Your task to perform on an android device: make emails show in primary in the gmail app Image 0: 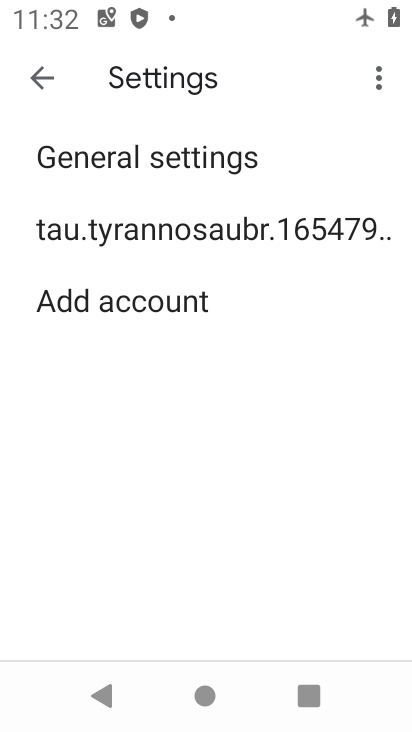
Step 0: press home button
Your task to perform on an android device: make emails show in primary in the gmail app Image 1: 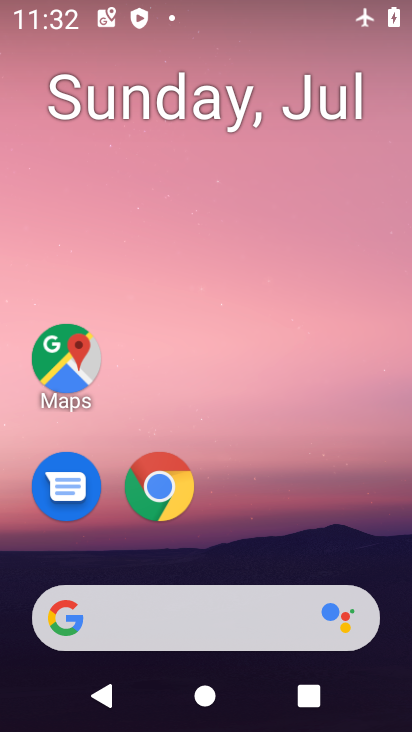
Step 1: drag from (365, 544) to (380, 126)
Your task to perform on an android device: make emails show in primary in the gmail app Image 2: 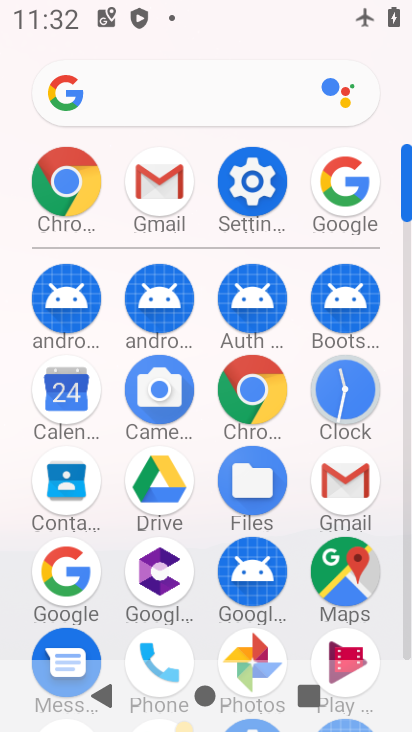
Step 2: click (340, 479)
Your task to perform on an android device: make emails show in primary in the gmail app Image 3: 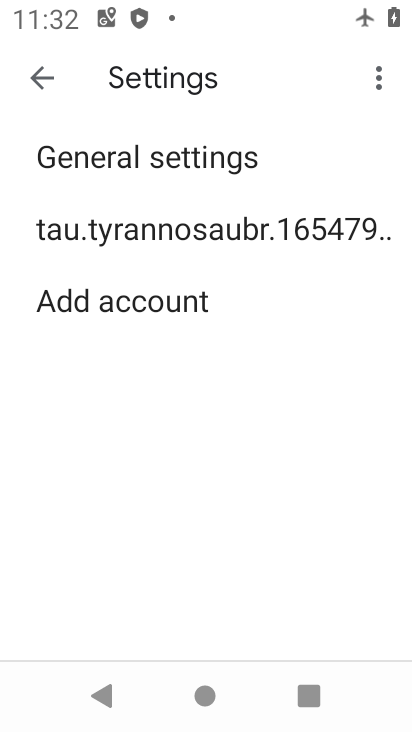
Step 3: click (258, 238)
Your task to perform on an android device: make emails show in primary in the gmail app Image 4: 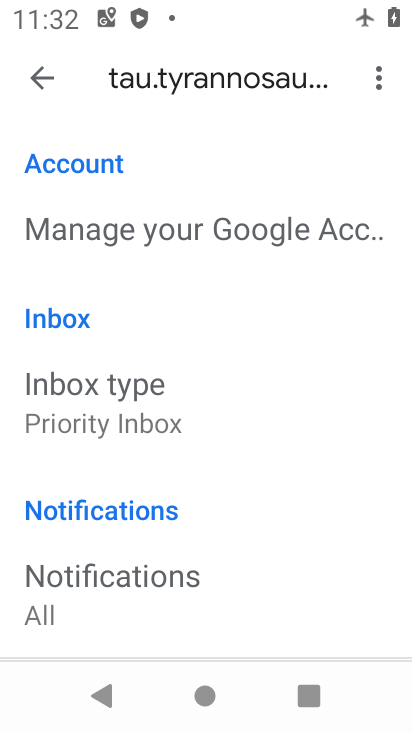
Step 4: drag from (277, 462) to (277, 388)
Your task to perform on an android device: make emails show in primary in the gmail app Image 5: 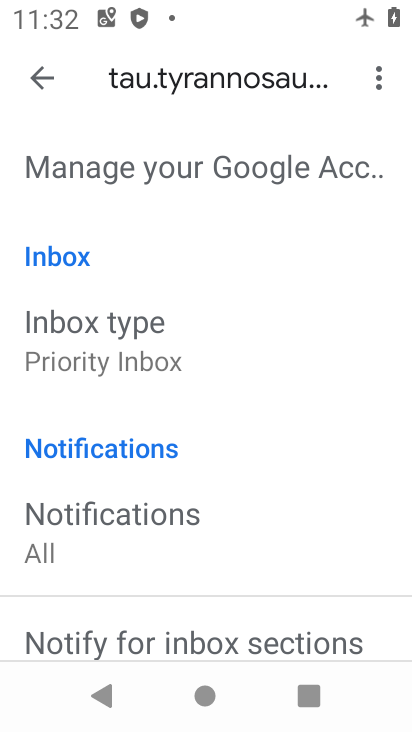
Step 5: drag from (295, 495) to (292, 355)
Your task to perform on an android device: make emails show in primary in the gmail app Image 6: 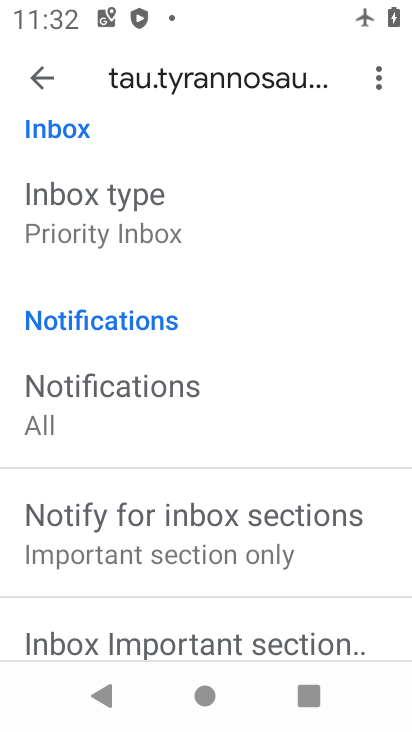
Step 6: click (160, 231)
Your task to perform on an android device: make emails show in primary in the gmail app Image 7: 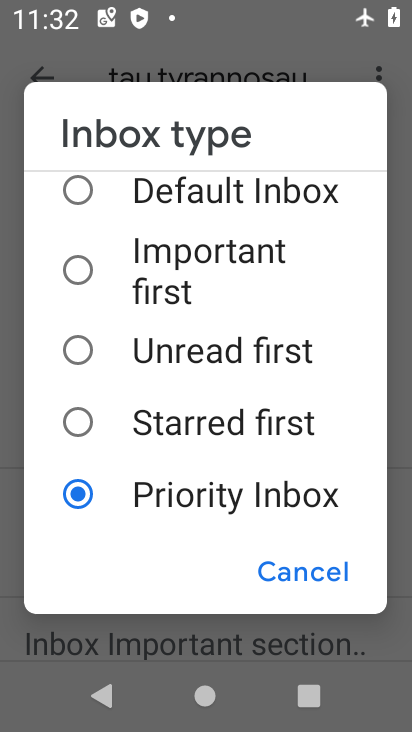
Step 7: click (192, 198)
Your task to perform on an android device: make emails show in primary in the gmail app Image 8: 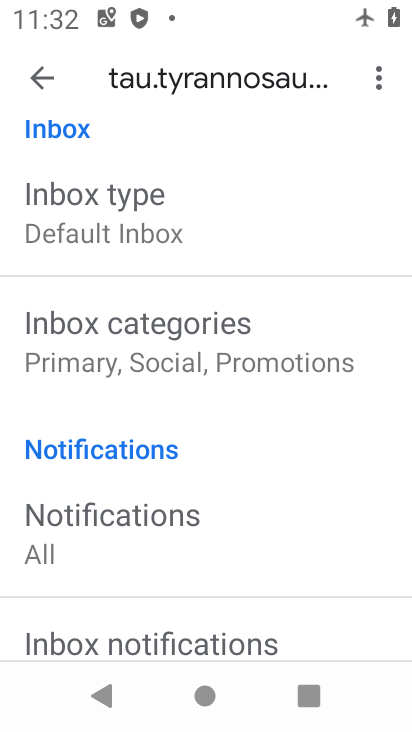
Step 8: click (202, 348)
Your task to perform on an android device: make emails show in primary in the gmail app Image 9: 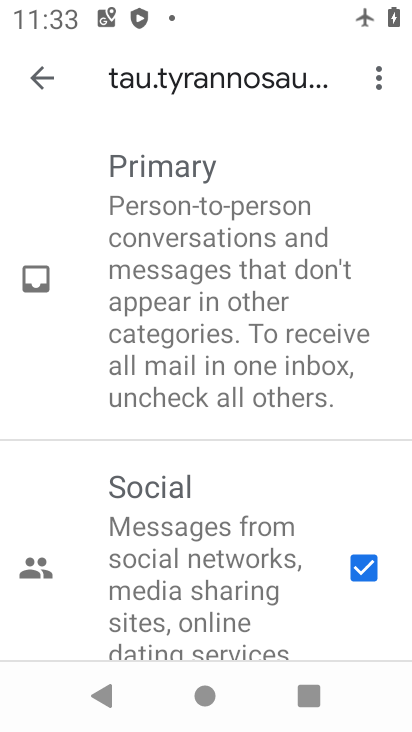
Step 9: drag from (267, 510) to (265, 353)
Your task to perform on an android device: make emails show in primary in the gmail app Image 10: 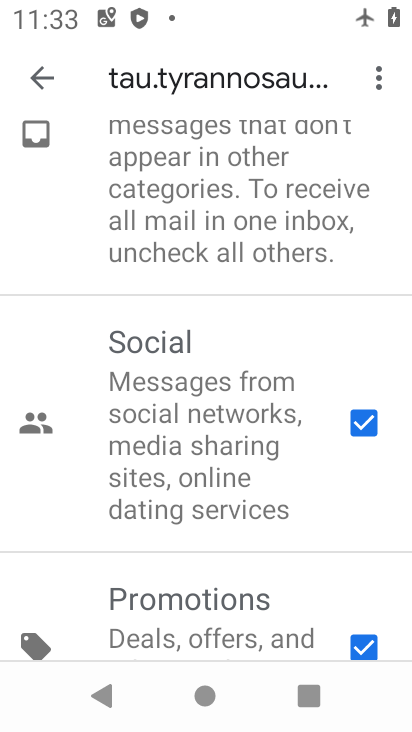
Step 10: click (377, 419)
Your task to perform on an android device: make emails show in primary in the gmail app Image 11: 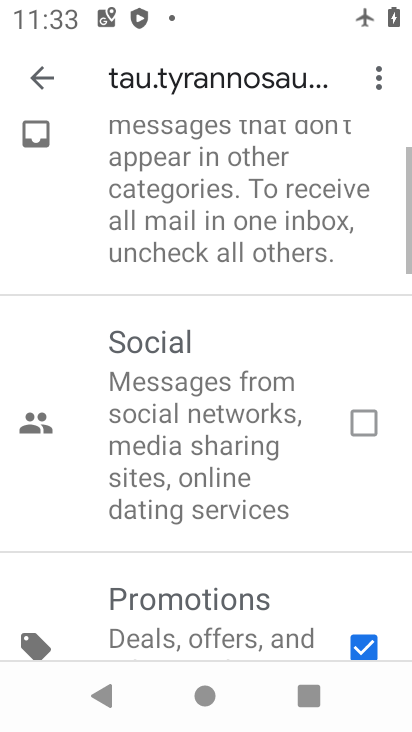
Step 11: drag from (300, 544) to (292, 326)
Your task to perform on an android device: make emails show in primary in the gmail app Image 12: 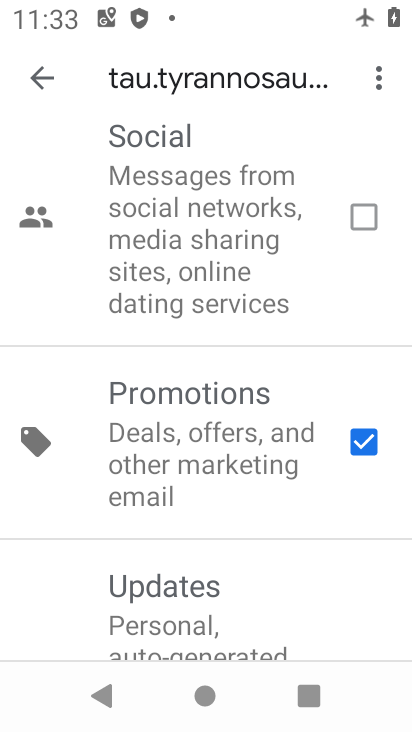
Step 12: click (349, 441)
Your task to perform on an android device: make emails show in primary in the gmail app Image 13: 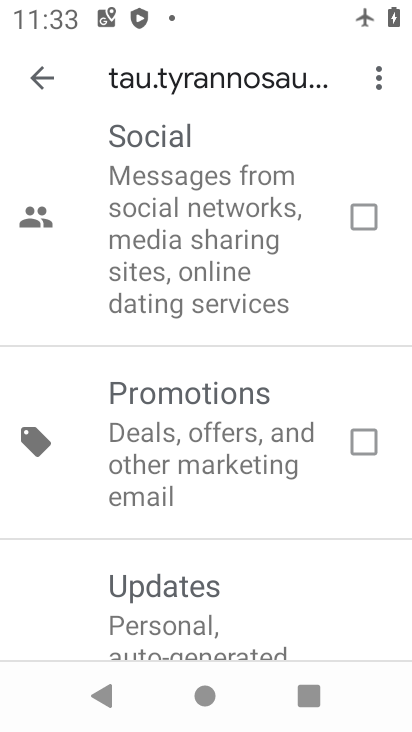
Step 13: task complete